Your task to perform on an android device: toggle show notifications on the lock screen Image 0: 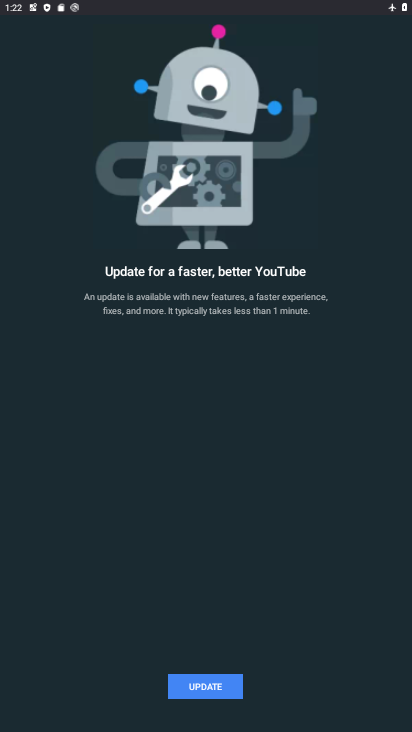
Step 0: press home button
Your task to perform on an android device: toggle show notifications on the lock screen Image 1: 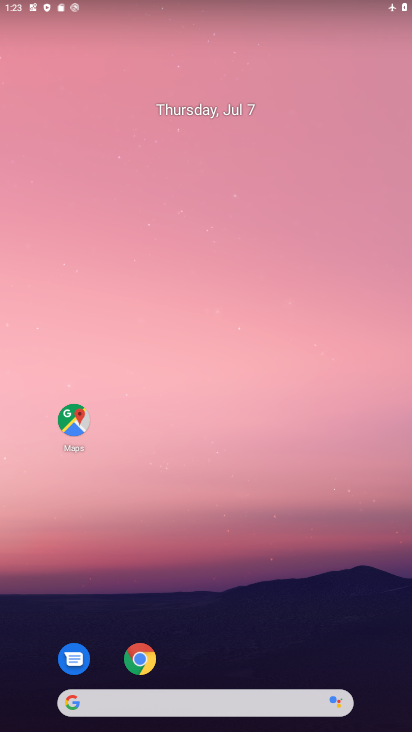
Step 1: drag from (230, 671) to (267, 68)
Your task to perform on an android device: toggle show notifications on the lock screen Image 2: 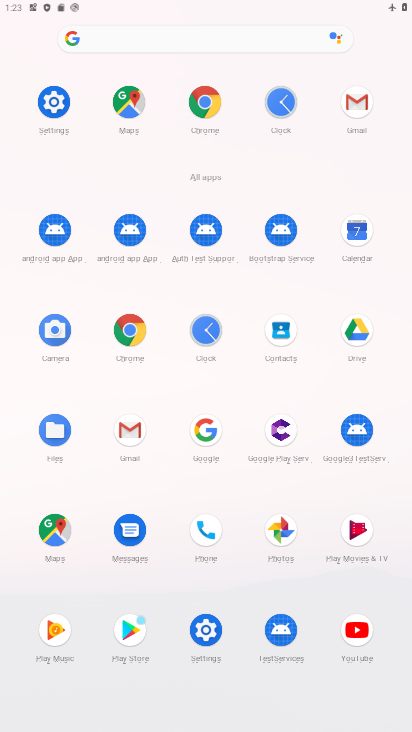
Step 2: click (54, 96)
Your task to perform on an android device: toggle show notifications on the lock screen Image 3: 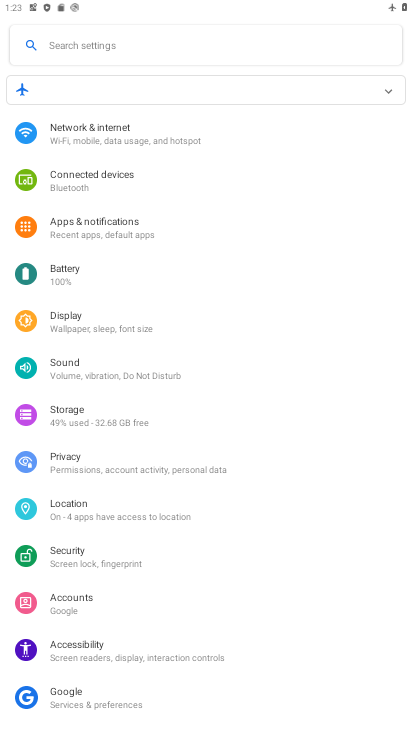
Step 3: click (134, 225)
Your task to perform on an android device: toggle show notifications on the lock screen Image 4: 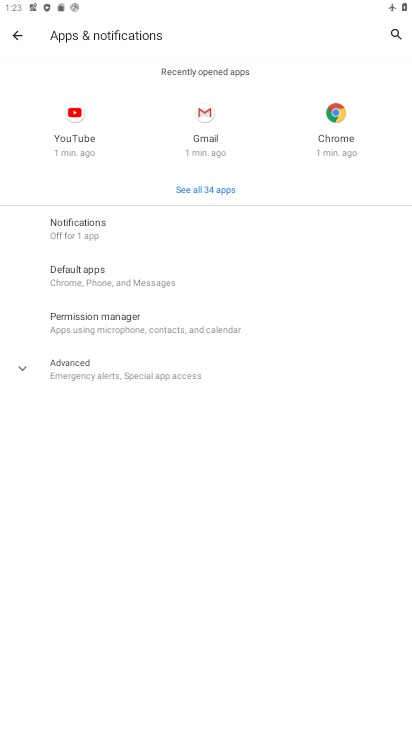
Step 4: click (113, 224)
Your task to perform on an android device: toggle show notifications on the lock screen Image 5: 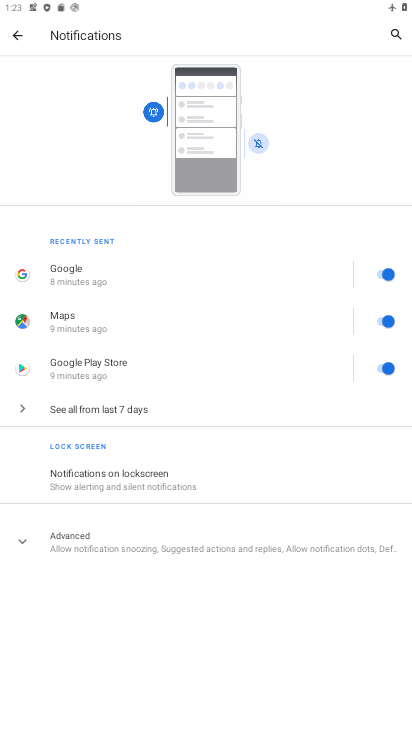
Step 5: click (129, 475)
Your task to perform on an android device: toggle show notifications on the lock screen Image 6: 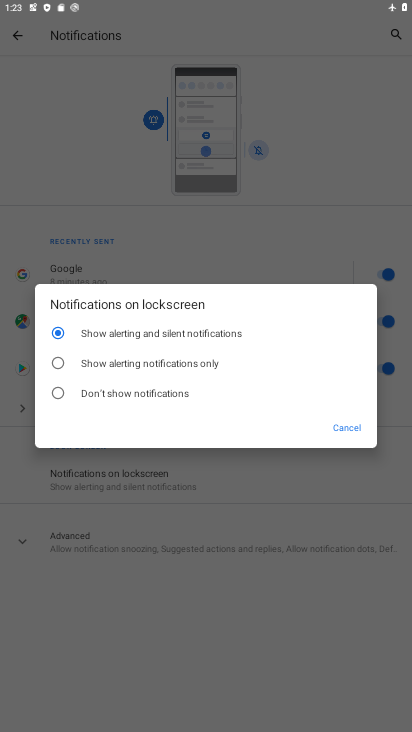
Step 6: click (53, 360)
Your task to perform on an android device: toggle show notifications on the lock screen Image 7: 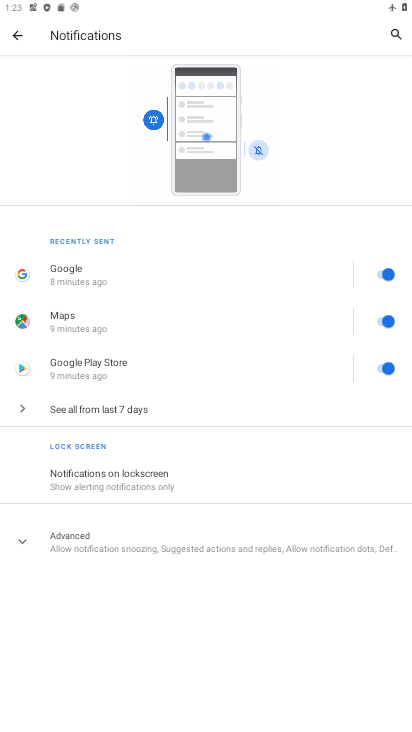
Step 7: task complete